Your task to perform on an android device: Open battery settings Image 0: 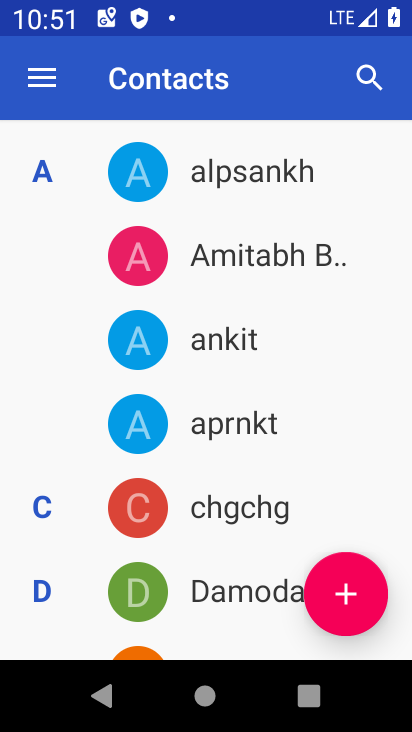
Step 0: press home button
Your task to perform on an android device: Open battery settings Image 1: 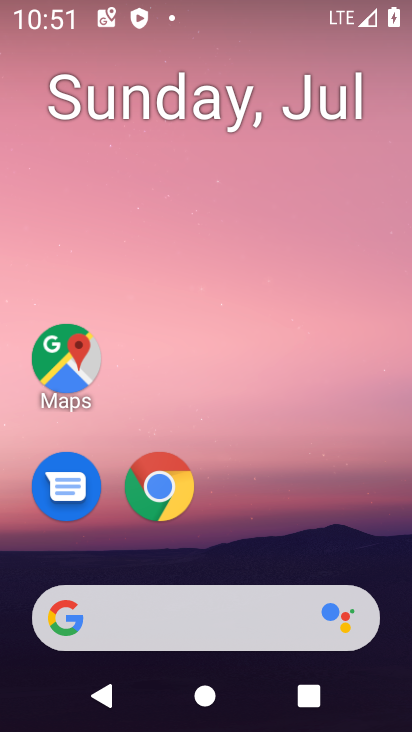
Step 1: drag from (366, 542) to (363, 89)
Your task to perform on an android device: Open battery settings Image 2: 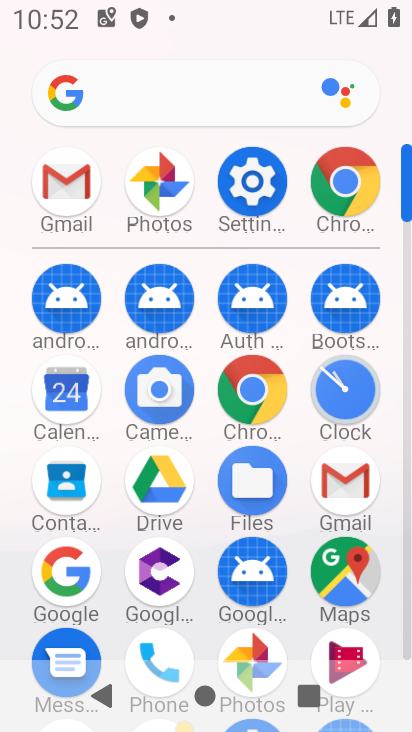
Step 2: click (259, 197)
Your task to perform on an android device: Open battery settings Image 3: 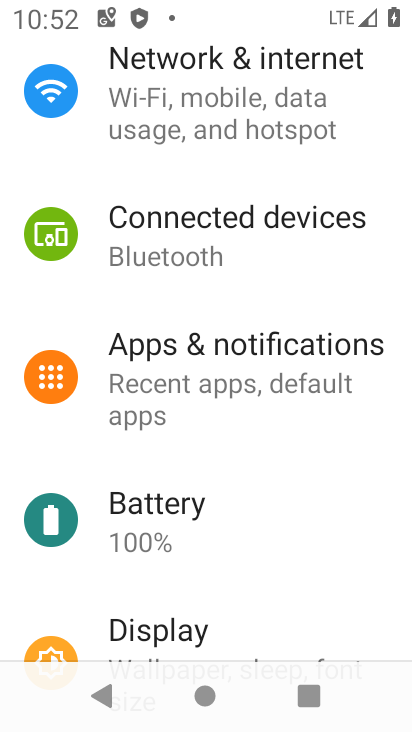
Step 3: drag from (348, 499) to (347, 343)
Your task to perform on an android device: Open battery settings Image 4: 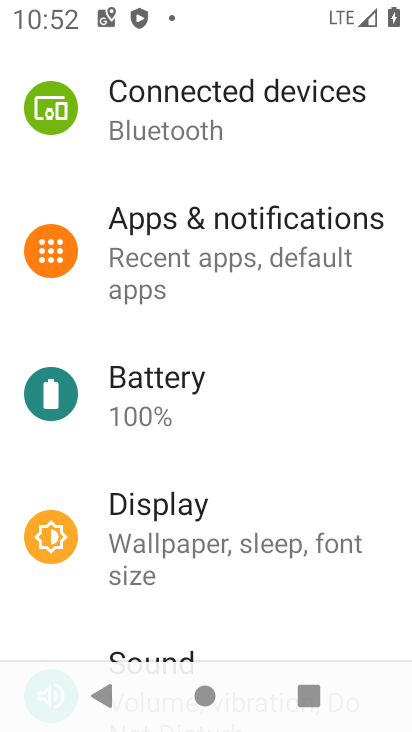
Step 4: drag from (330, 550) to (324, 376)
Your task to perform on an android device: Open battery settings Image 5: 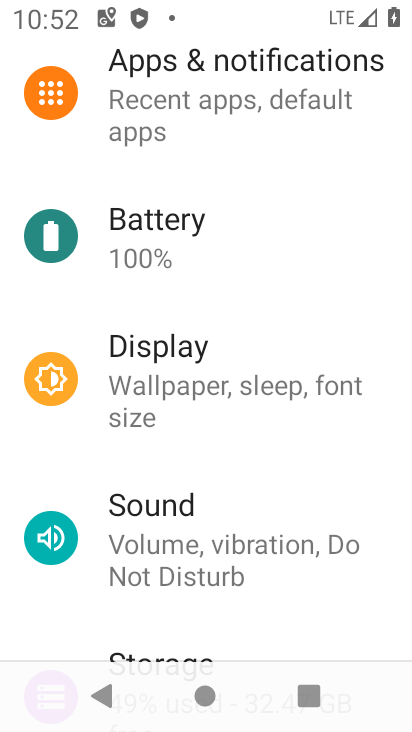
Step 5: drag from (338, 567) to (348, 341)
Your task to perform on an android device: Open battery settings Image 6: 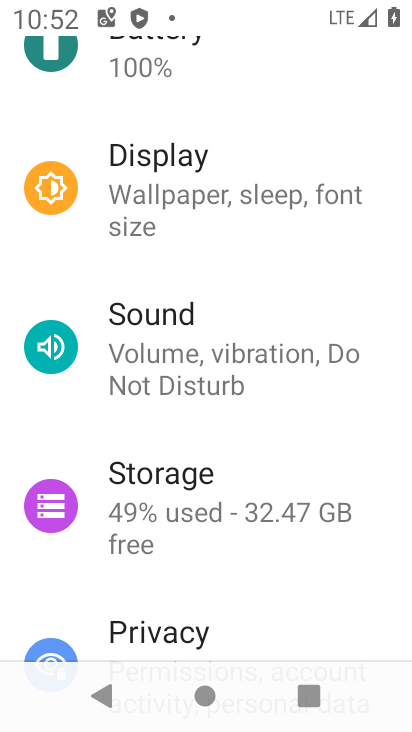
Step 6: drag from (355, 585) to (342, 316)
Your task to perform on an android device: Open battery settings Image 7: 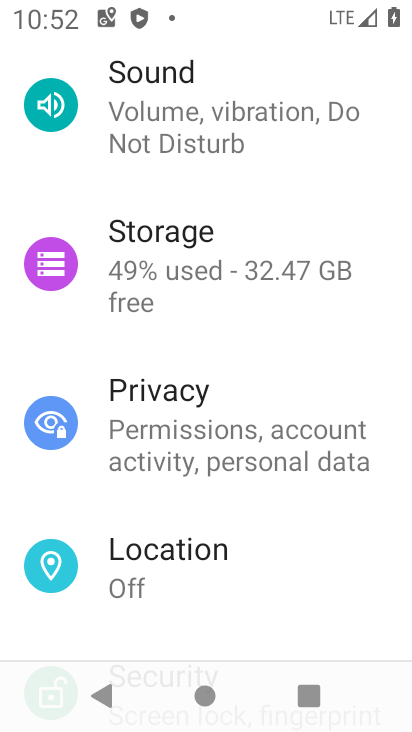
Step 7: drag from (351, 480) to (353, 202)
Your task to perform on an android device: Open battery settings Image 8: 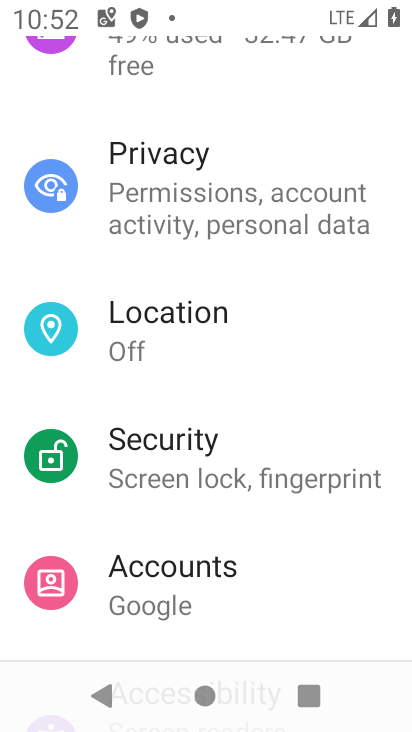
Step 8: drag from (361, 551) to (329, 309)
Your task to perform on an android device: Open battery settings Image 9: 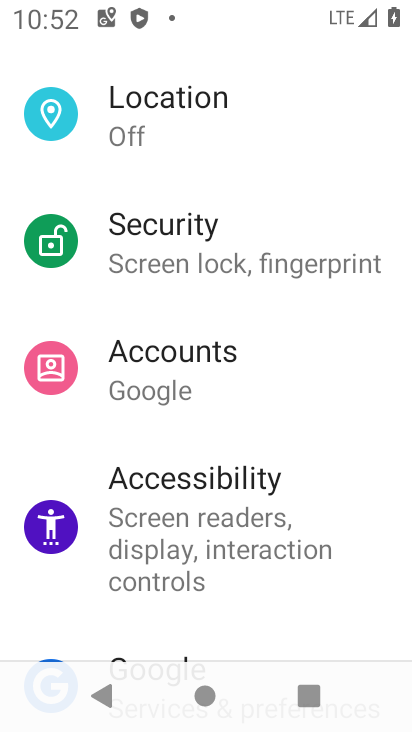
Step 9: drag from (334, 514) to (329, 321)
Your task to perform on an android device: Open battery settings Image 10: 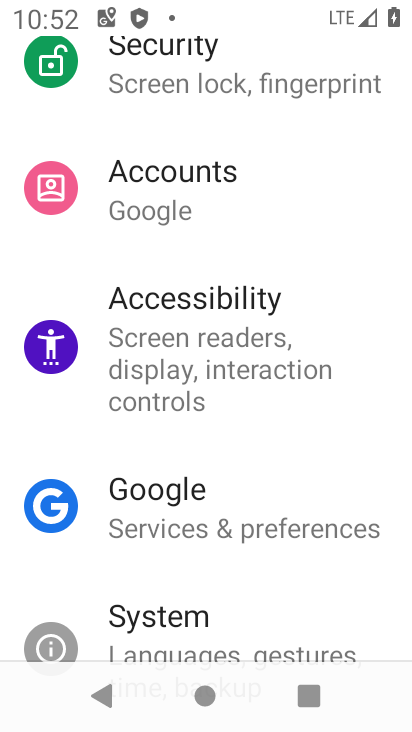
Step 10: drag from (346, 477) to (348, 305)
Your task to perform on an android device: Open battery settings Image 11: 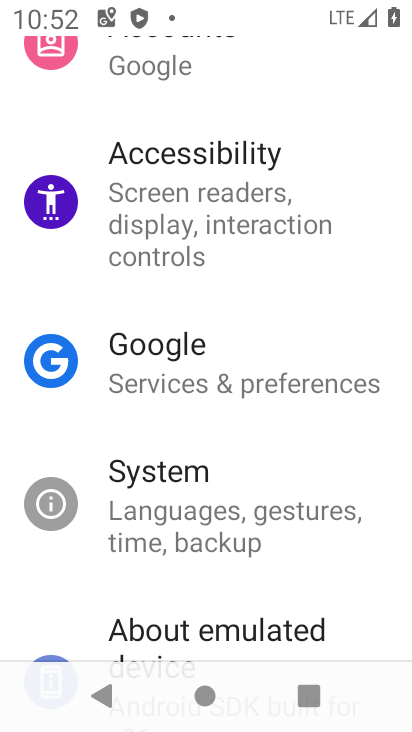
Step 11: drag from (363, 547) to (345, 364)
Your task to perform on an android device: Open battery settings Image 12: 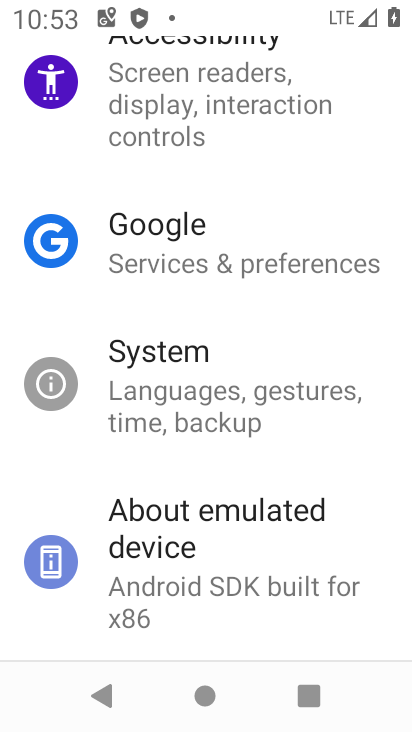
Step 12: drag from (364, 279) to (350, 496)
Your task to perform on an android device: Open battery settings Image 13: 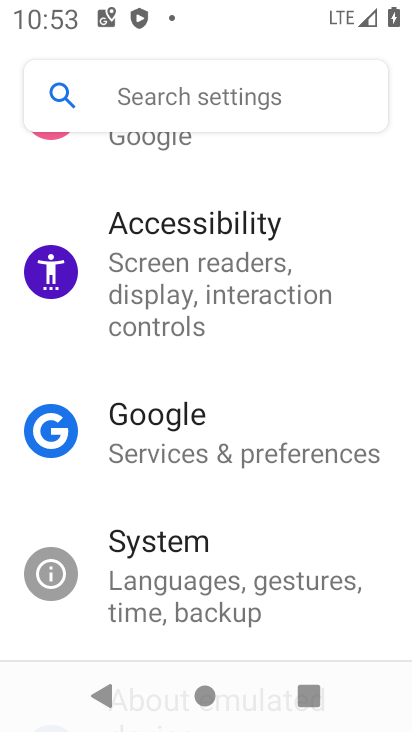
Step 13: drag from (337, 220) to (344, 463)
Your task to perform on an android device: Open battery settings Image 14: 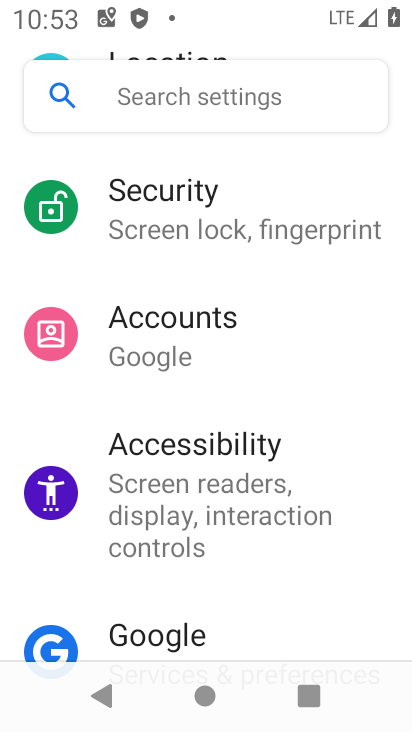
Step 14: drag from (342, 263) to (345, 466)
Your task to perform on an android device: Open battery settings Image 15: 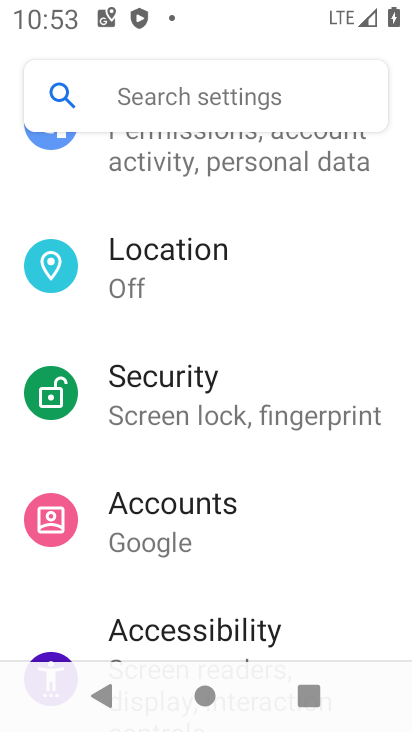
Step 15: drag from (332, 303) to (343, 533)
Your task to perform on an android device: Open battery settings Image 16: 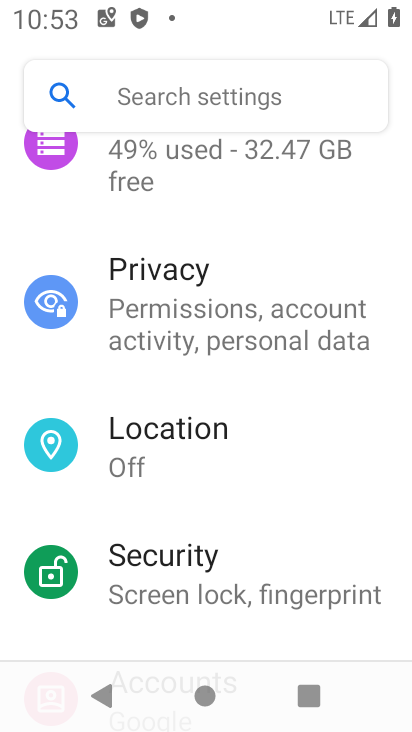
Step 16: drag from (338, 244) to (339, 501)
Your task to perform on an android device: Open battery settings Image 17: 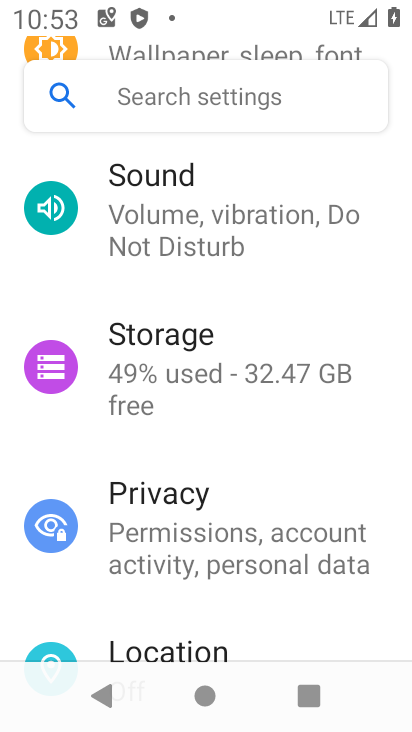
Step 17: drag from (336, 265) to (331, 459)
Your task to perform on an android device: Open battery settings Image 18: 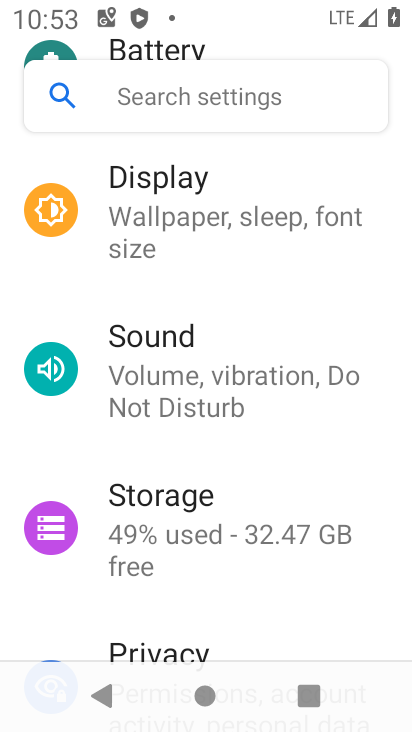
Step 18: drag from (342, 235) to (331, 482)
Your task to perform on an android device: Open battery settings Image 19: 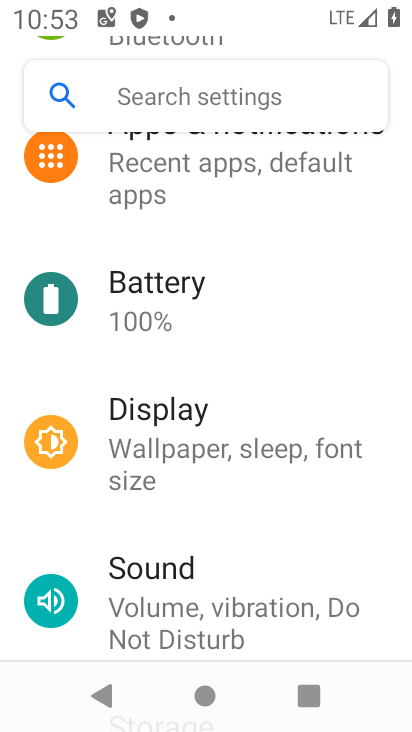
Step 19: drag from (339, 209) to (340, 448)
Your task to perform on an android device: Open battery settings Image 20: 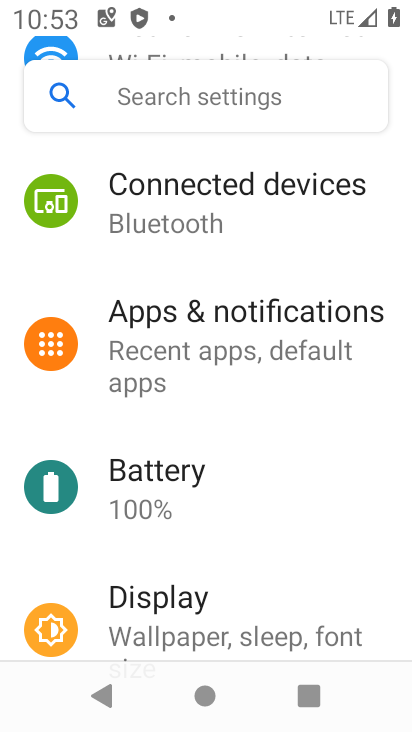
Step 20: drag from (348, 196) to (354, 441)
Your task to perform on an android device: Open battery settings Image 21: 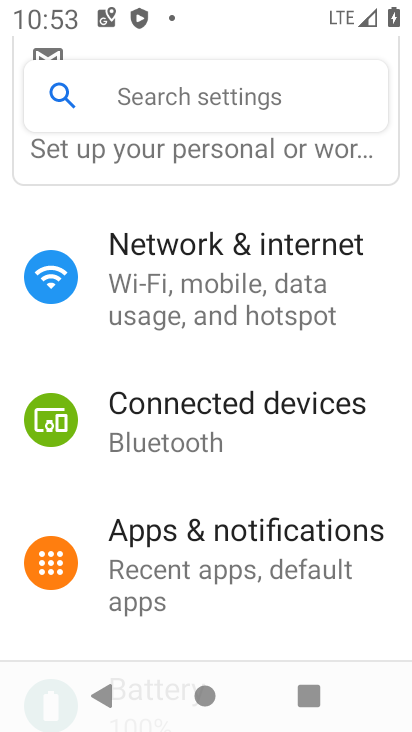
Step 21: drag from (302, 474) to (285, 298)
Your task to perform on an android device: Open battery settings Image 22: 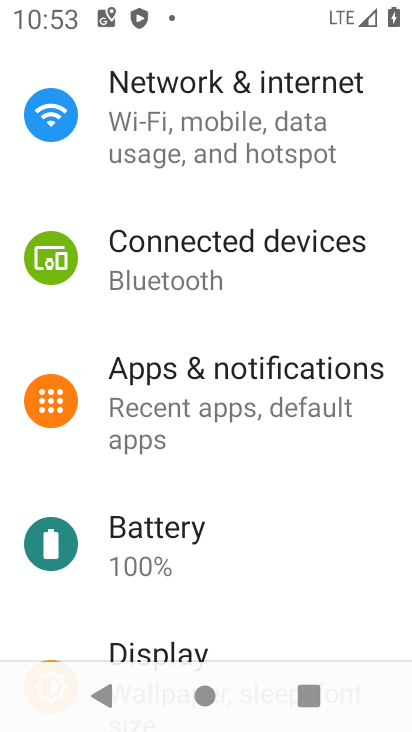
Step 22: click (299, 546)
Your task to perform on an android device: Open battery settings Image 23: 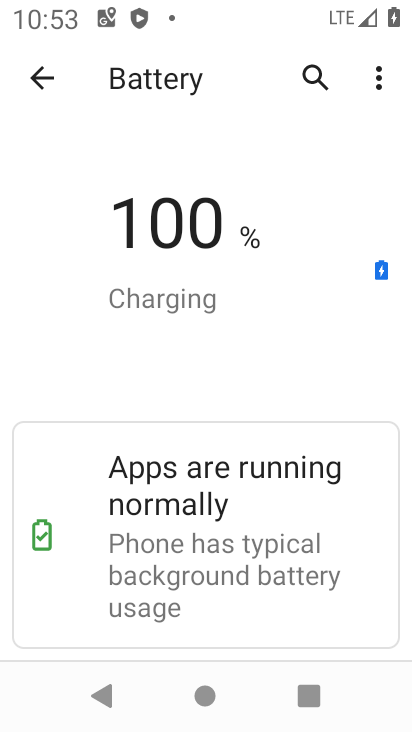
Step 23: task complete